Your task to perform on an android device: read, delete, or share a saved page in the chrome app Image 0: 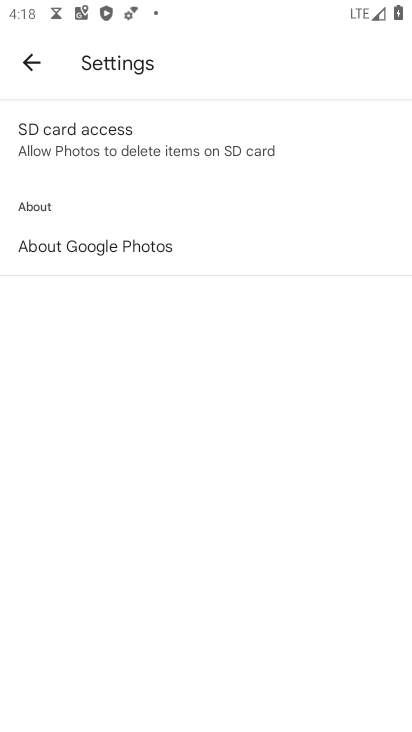
Step 0: press home button
Your task to perform on an android device: read, delete, or share a saved page in the chrome app Image 1: 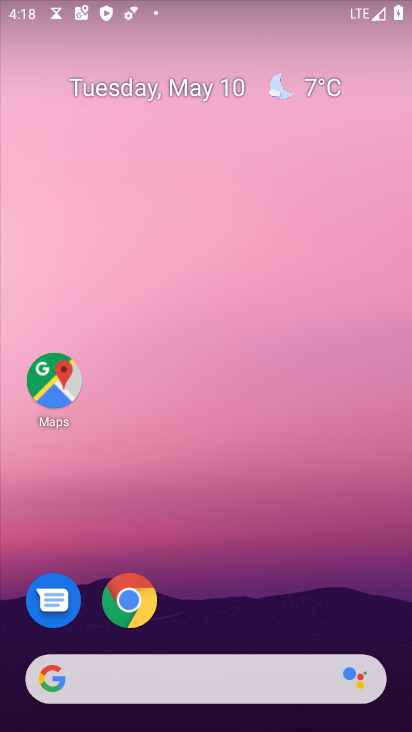
Step 1: click (111, 600)
Your task to perform on an android device: read, delete, or share a saved page in the chrome app Image 2: 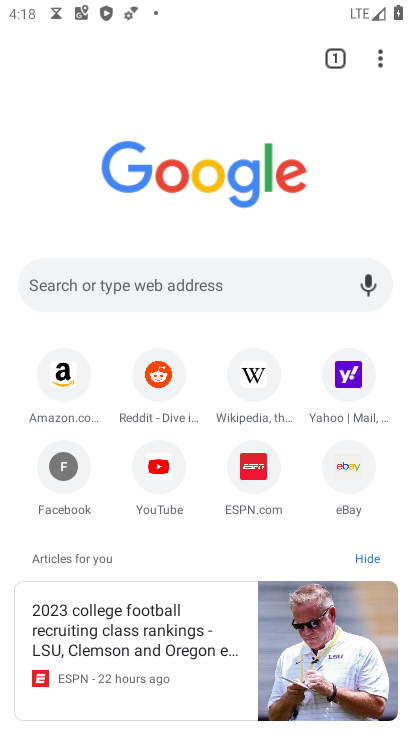
Step 2: click (383, 69)
Your task to perform on an android device: read, delete, or share a saved page in the chrome app Image 3: 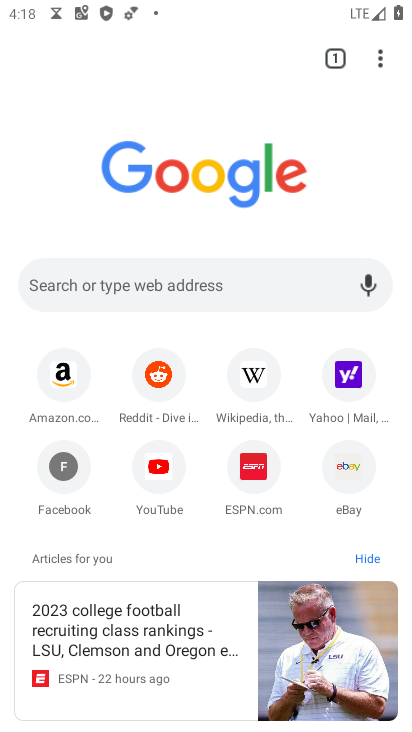
Step 3: click (384, 55)
Your task to perform on an android device: read, delete, or share a saved page in the chrome app Image 4: 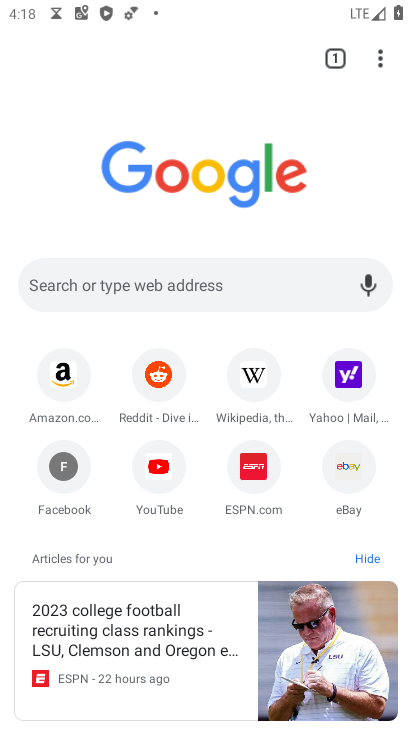
Step 4: click (384, 55)
Your task to perform on an android device: read, delete, or share a saved page in the chrome app Image 5: 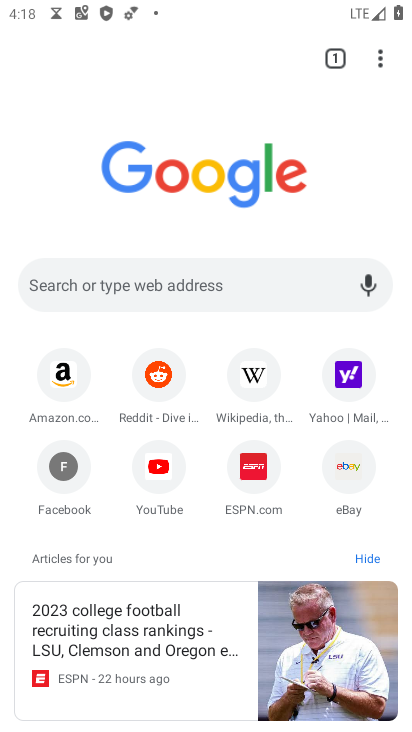
Step 5: click (384, 55)
Your task to perform on an android device: read, delete, or share a saved page in the chrome app Image 6: 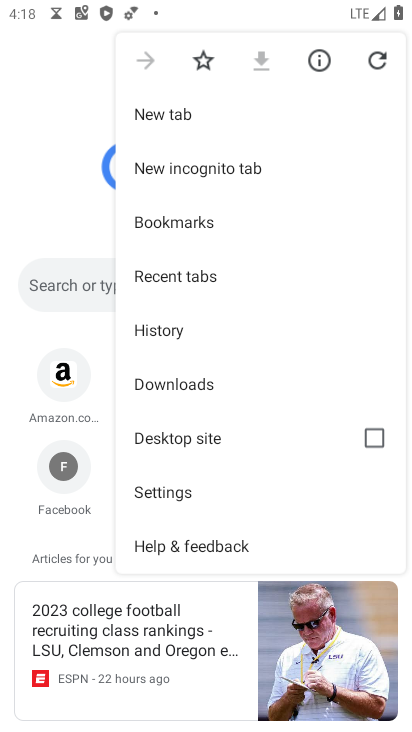
Step 6: click (249, 494)
Your task to perform on an android device: read, delete, or share a saved page in the chrome app Image 7: 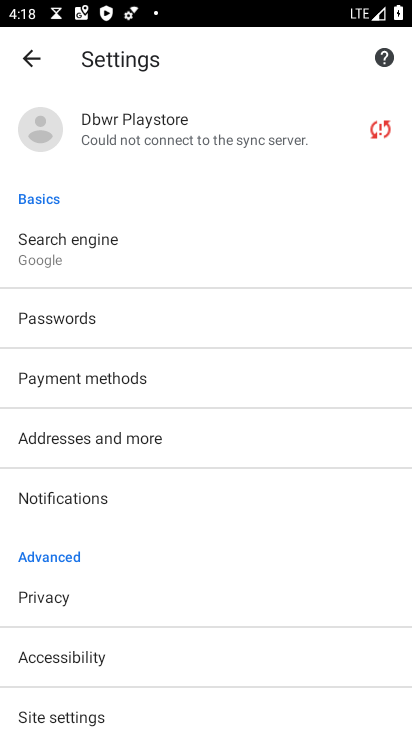
Step 7: drag from (122, 547) to (259, 78)
Your task to perform on an android device: read, delete, or share a saved page in the chrome app Image 8: 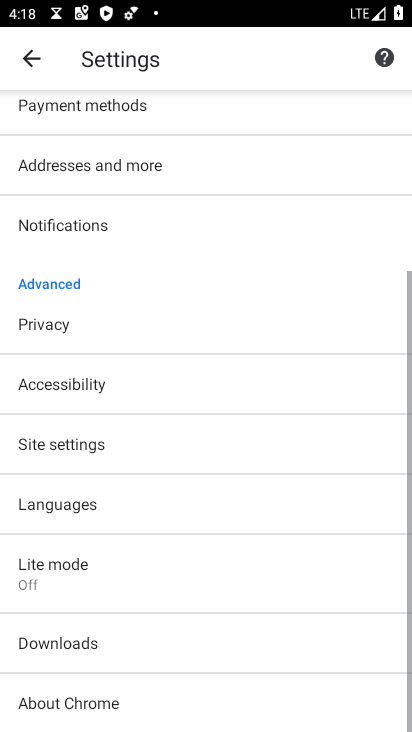
Step 8: drag from (142, 523) to (203, 204)
Your task to perform on an android device: read, delete, or share a saved page in the chrome app Image 9: 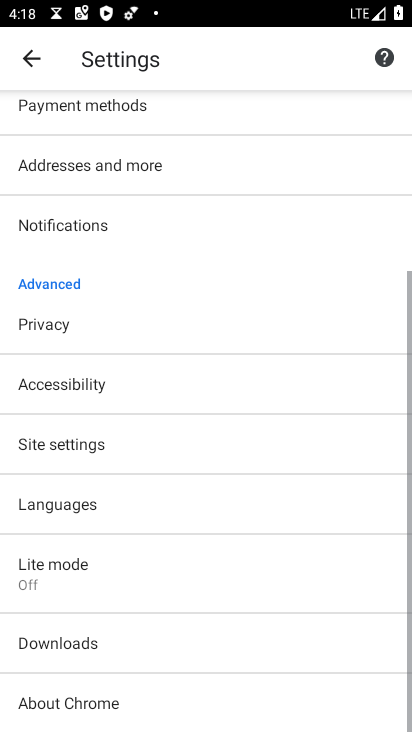
Step 9: click (163, 652)
Your task to perform on an android device: read, delete, or share a saved page in the chrome app Image 10: 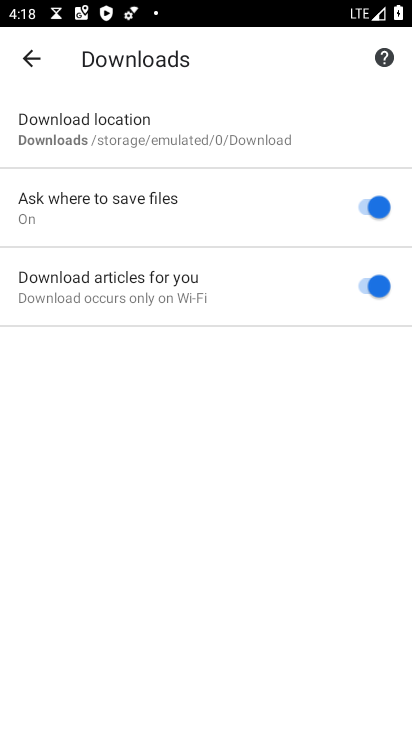
Step 10: click (162, 127)
Your task to perform on an android device: read, delete, or share a saved page in the chrome app Image 11: 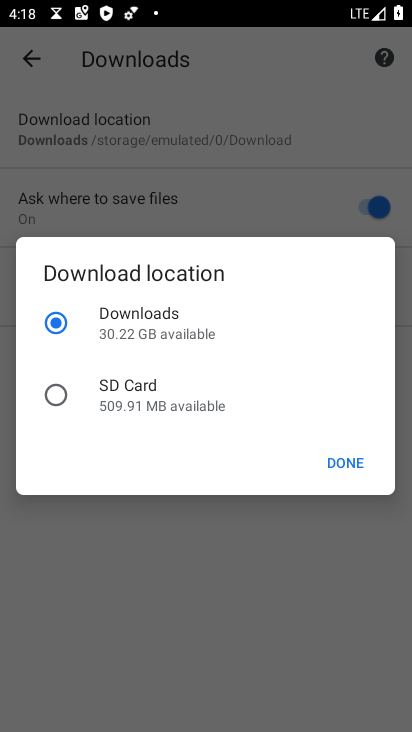
Step 11: click (210, 324)
Your task to perform on an android device: read, delete, or share a saved page in the chrome app Image 12: 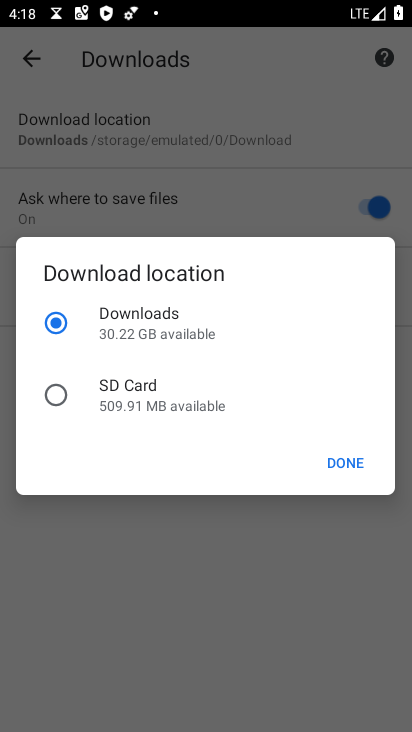
Step 12: click (357, 454)
Your task to perform on an android device: read, delete, or share a saved page in the chrome app Image 13: 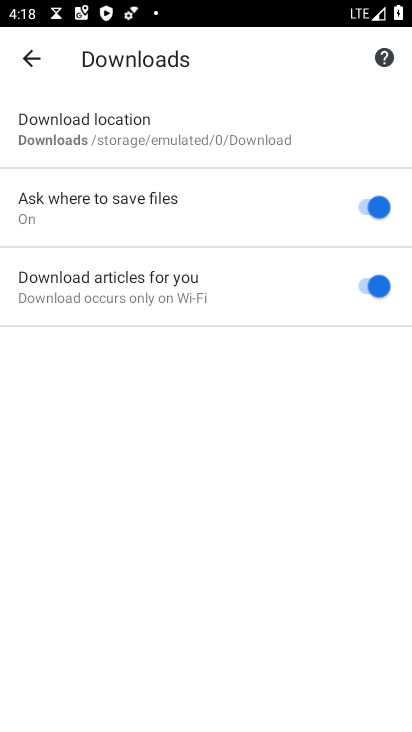
Step 13: click (40, 46)
Your task to perform on an android device: read, delete, or share a saved page in the chrome app Image 14: 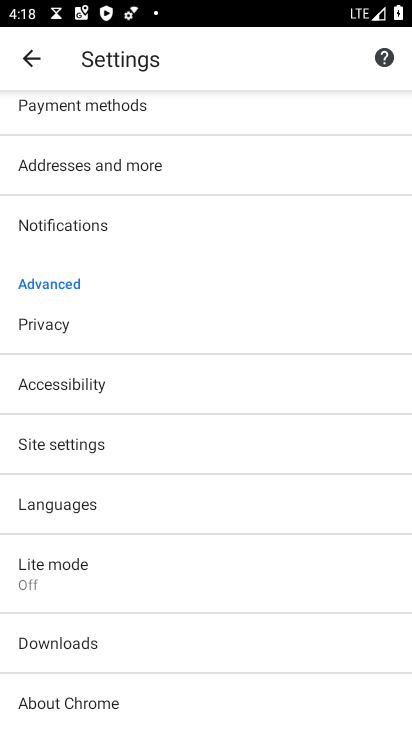
Step 14: drag from (145, 539) to (193, 235)
Your task to perform on an android device: read, delete, or share a saved page in the chrome app Image 15: 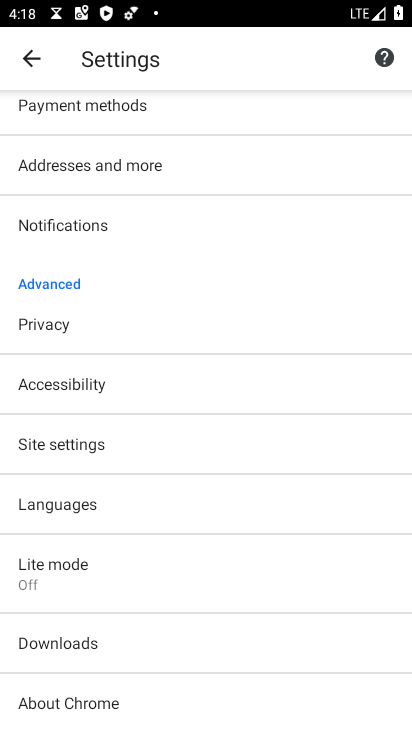
Step 15: drag from (97, 145) to (80, 645)
Your task to perform on an android device: read, delete, or share a saved page in the chrome app Image 16: 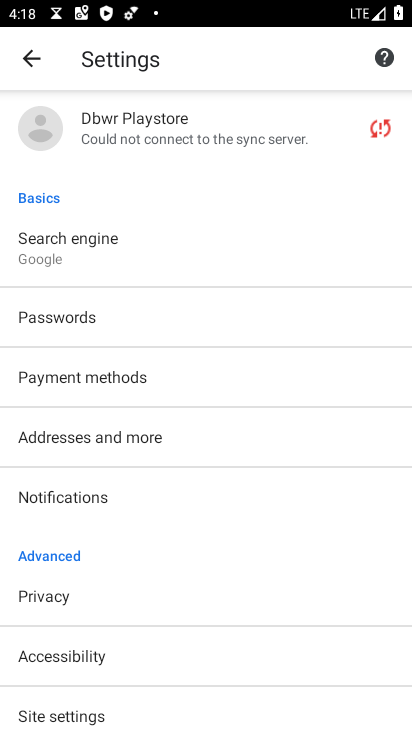
Step 16: click (46, 49)
Your task to perform on an android device: read, delete, or share a saved page in the chrome app Image 17: 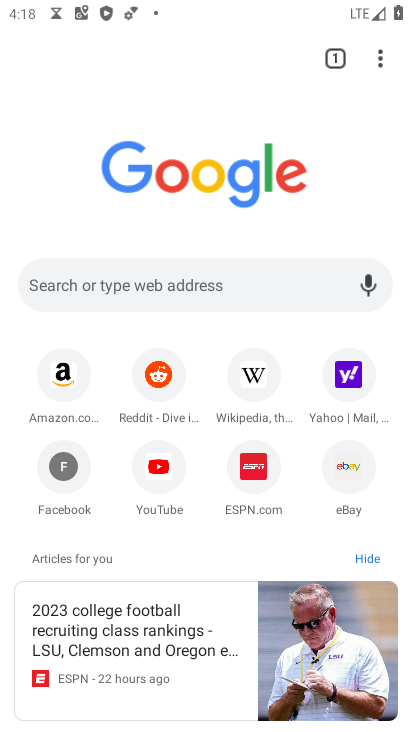
Step 17: click (379, 42)
Your task to perform on an android device: read, delete, or share a saved page in the chrome app Image 18: 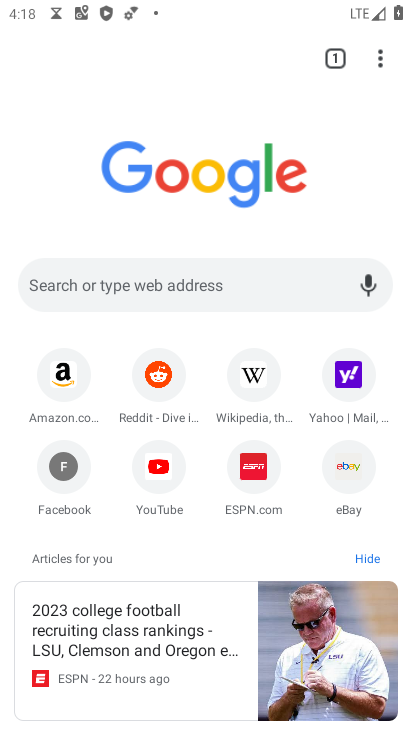
Step 18: task complete